Your task to perform on an android device: How big is a lion? Image 0: 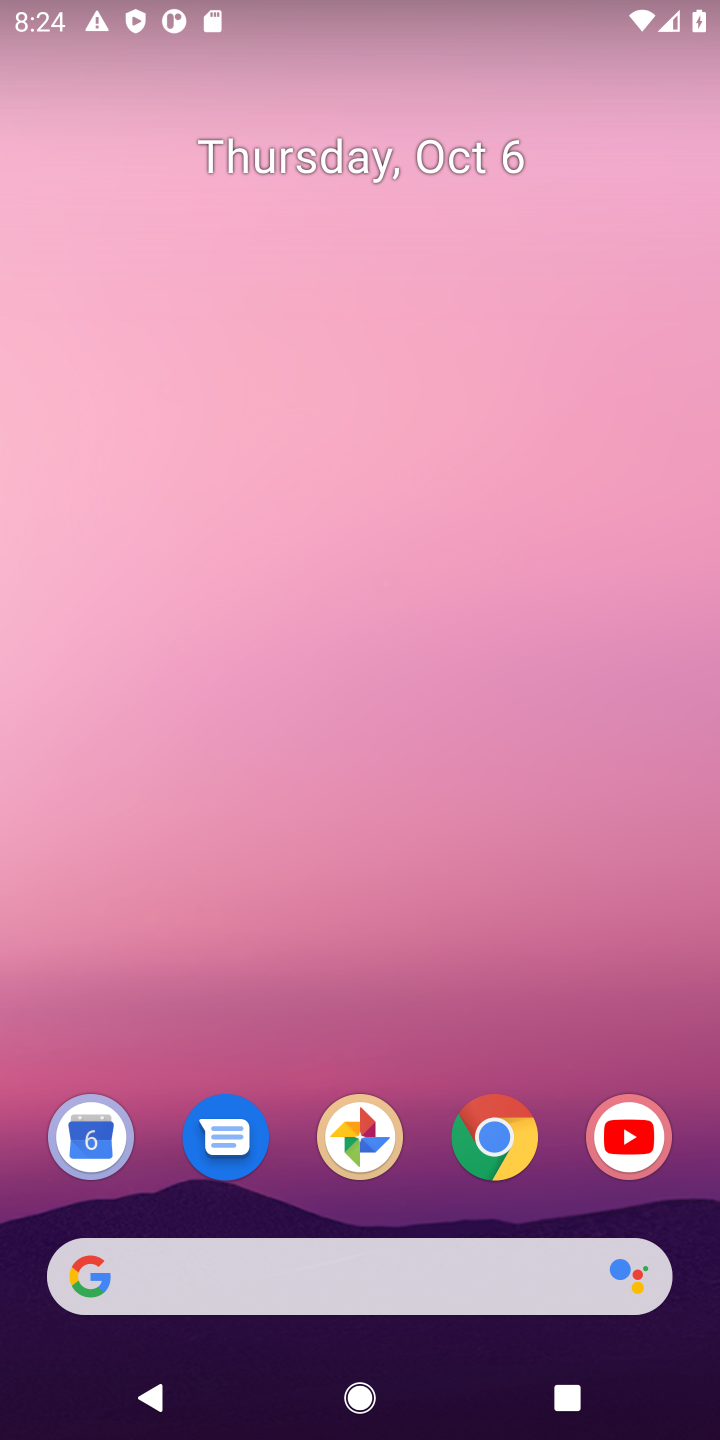
Step 0: click (497, 1126)
Your task to perform on an android device: How big is a lion? Image 1: 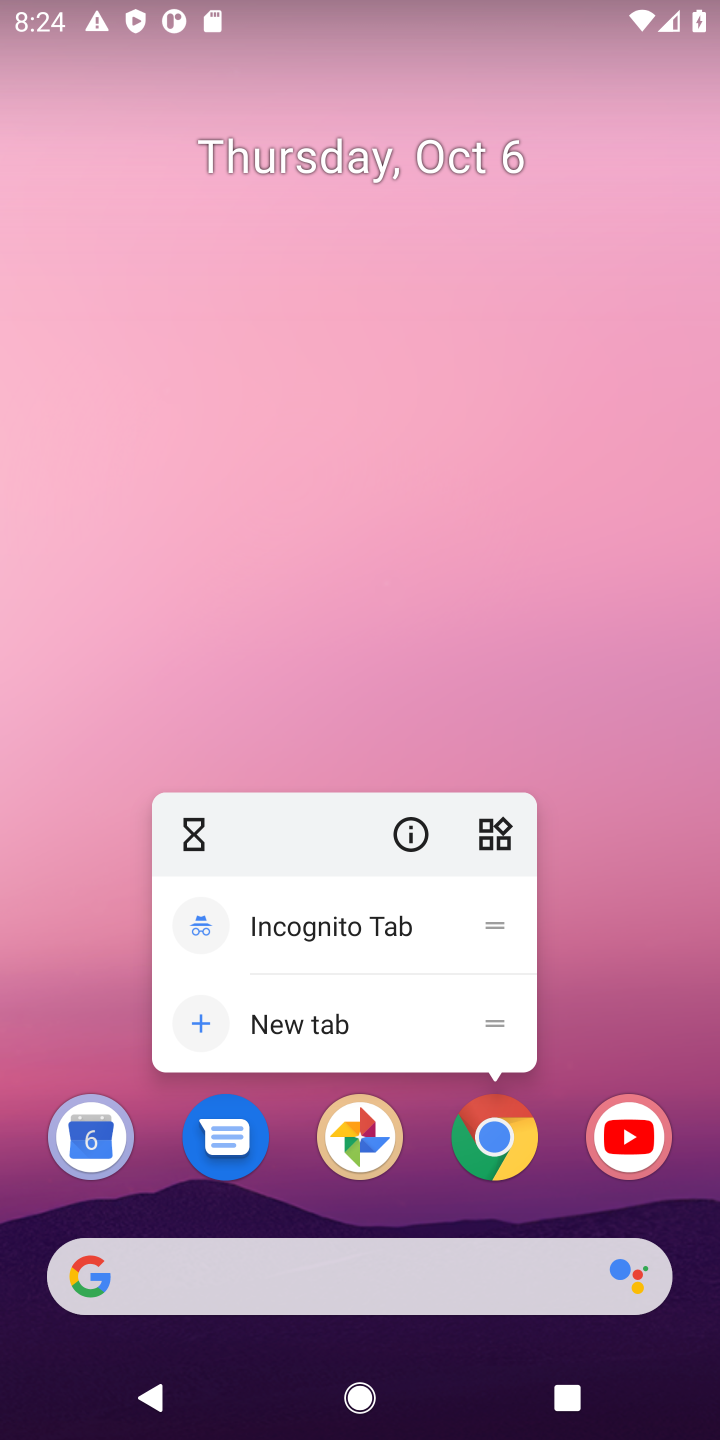
Step 1: click (492, 1148)
Your task to perform on an android device: How big is a lion? Image 2: 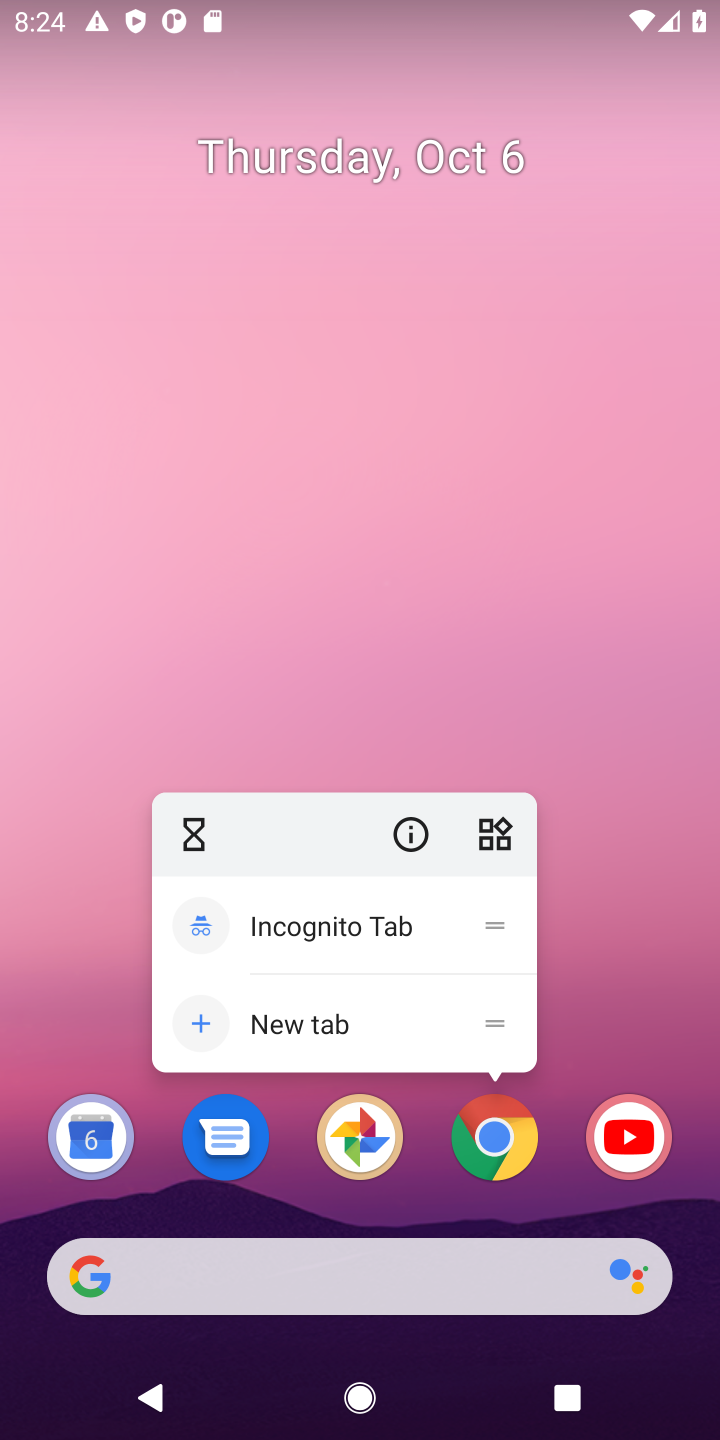
Step 2: click (493, 1159)
Your task to perform on an android device: How big is a lion? Image 3: 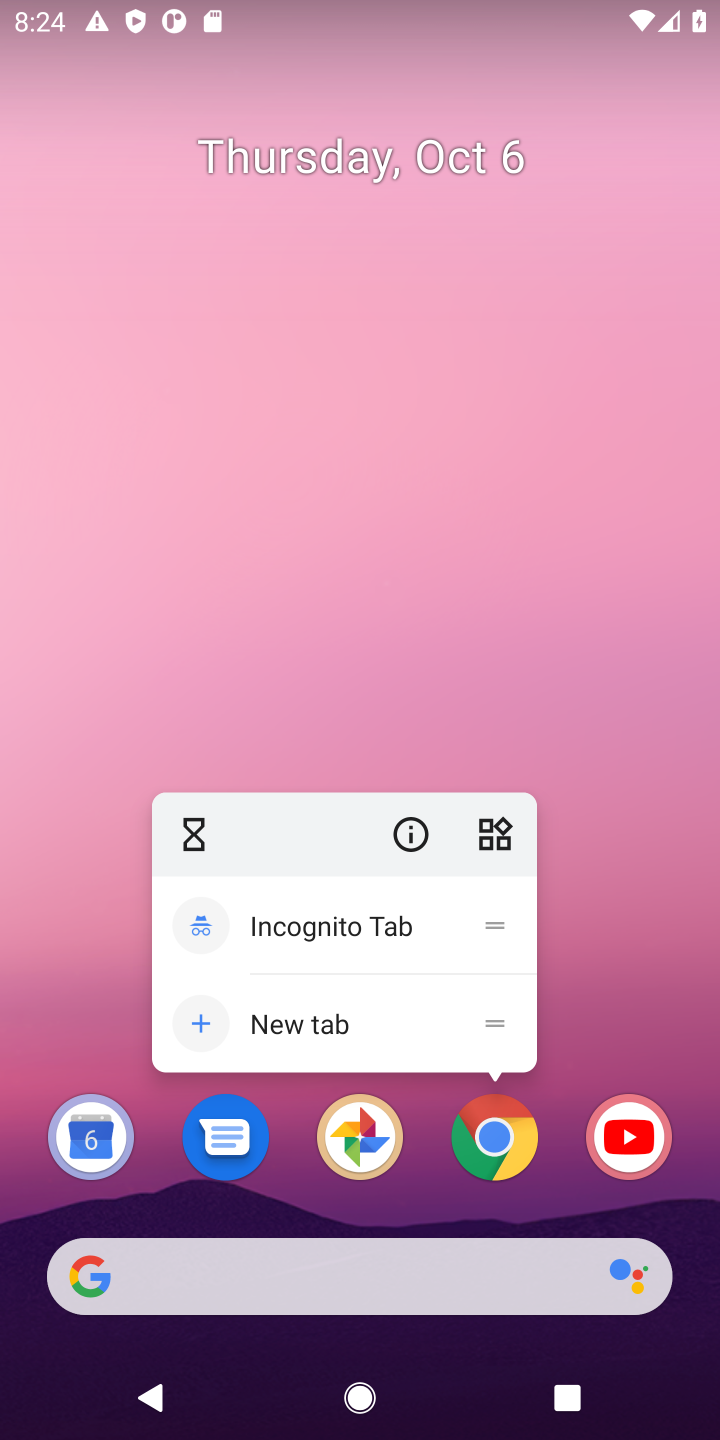
Step 3: click (499, 1153)
Your task to perform on an android device: How big is a lion? Image 4: 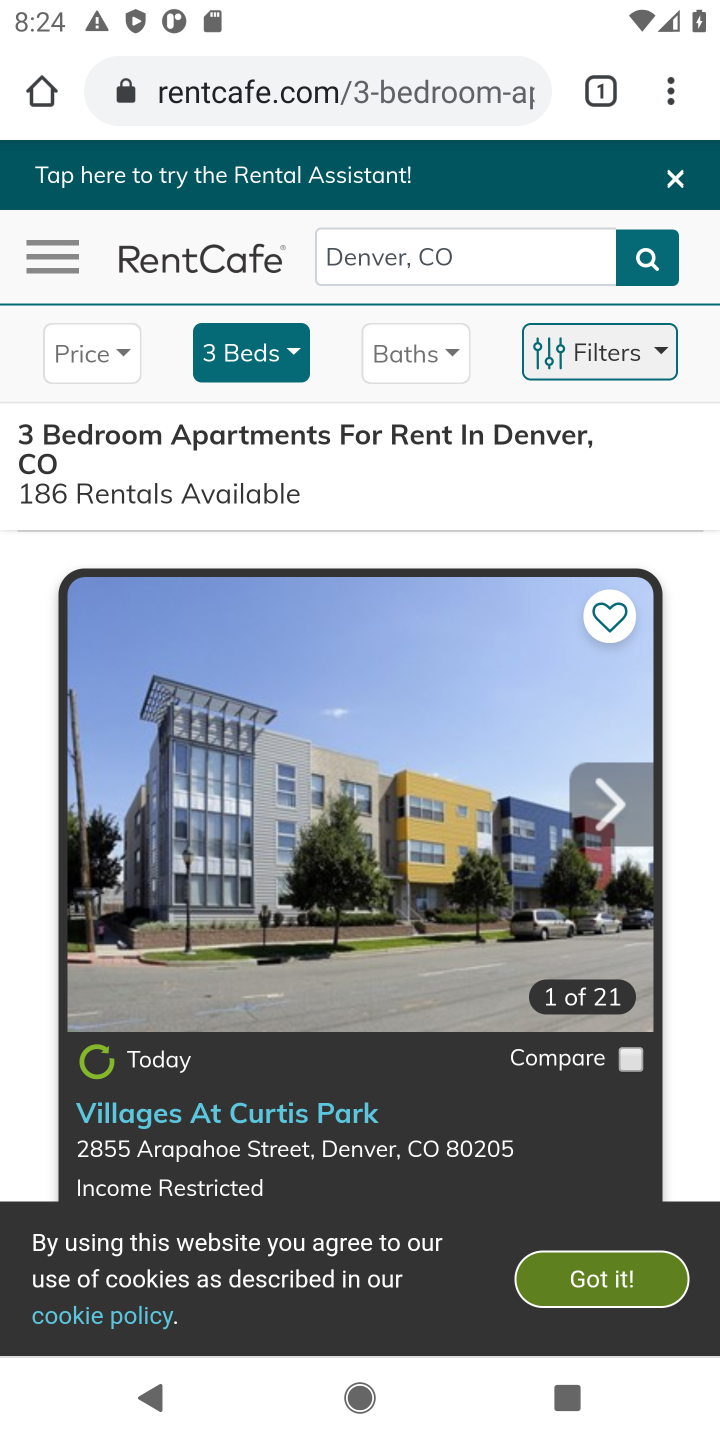
Step 4: click (485, 107)
Your task to perform on an android device: How big is a lion? Image 5: 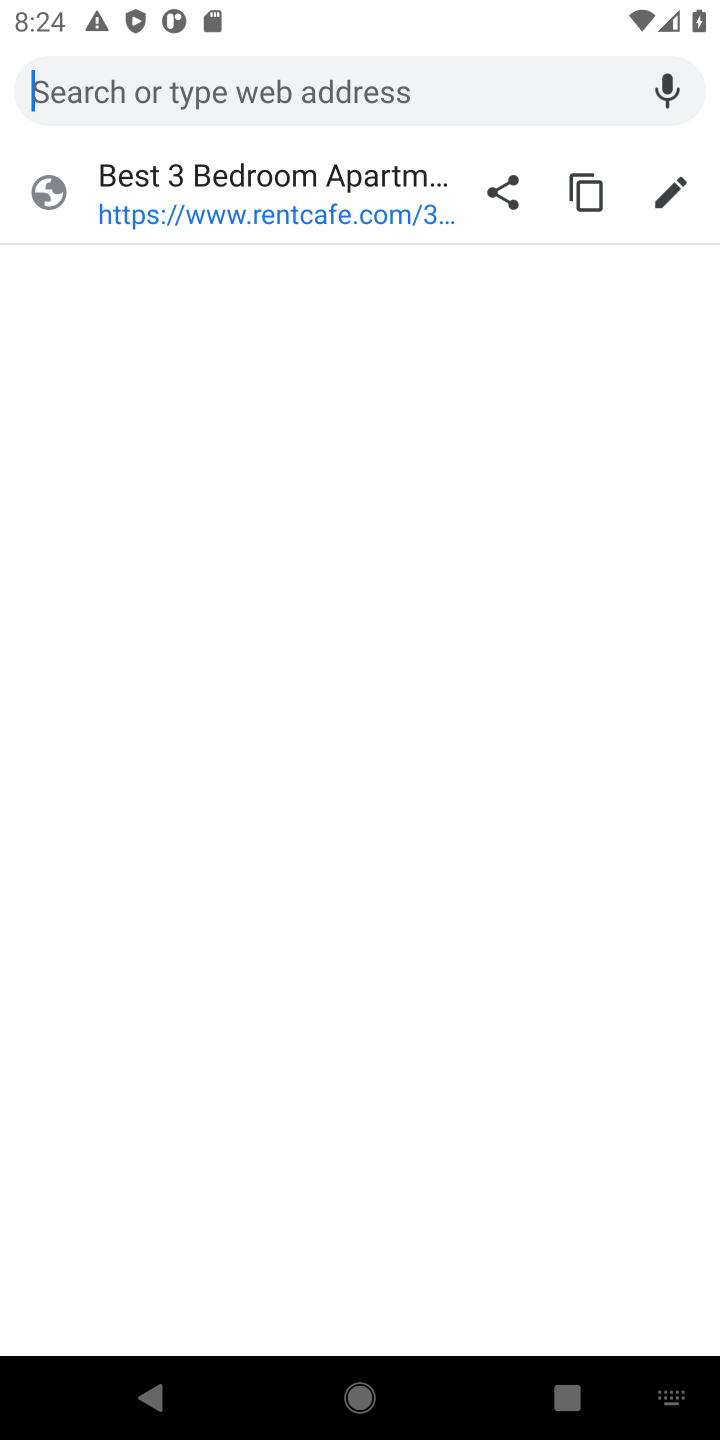
Step 5: type "how big is a lion ?"
Your task to perform on an android device: How big is a lion? Image 6: 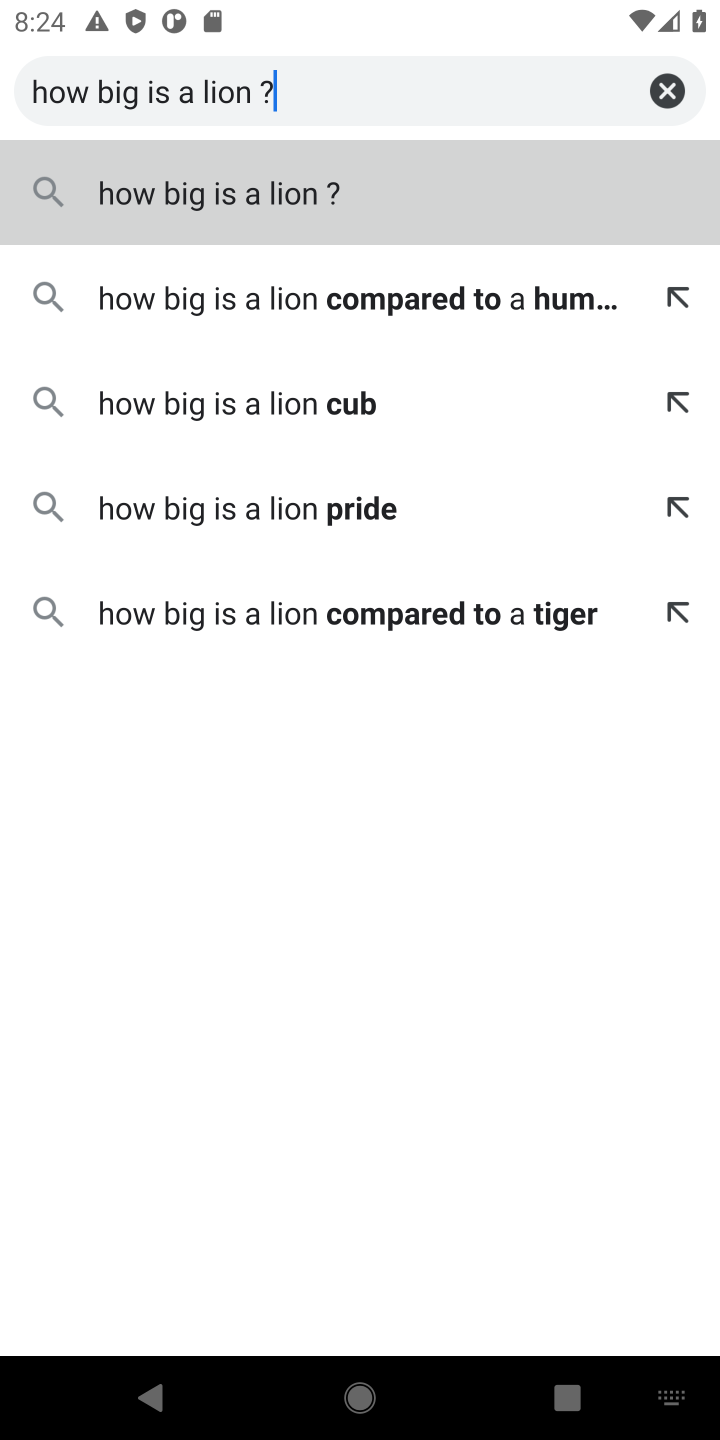
Step 6: click (189, 206)
Your task to perform on an android device: How big is a lion? Image 7: 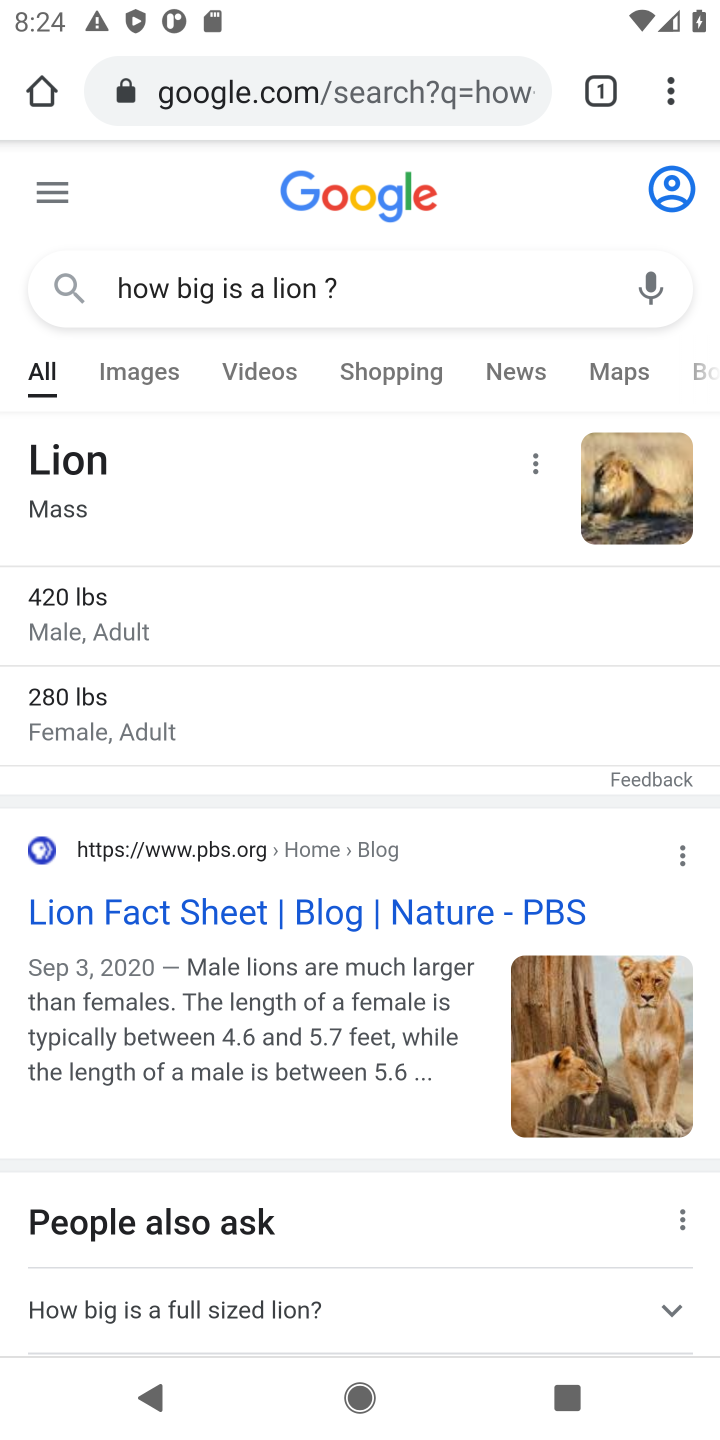
Step 7: click (206, 917)
Your task to perform on an android device: How big is a lion? Image 8: 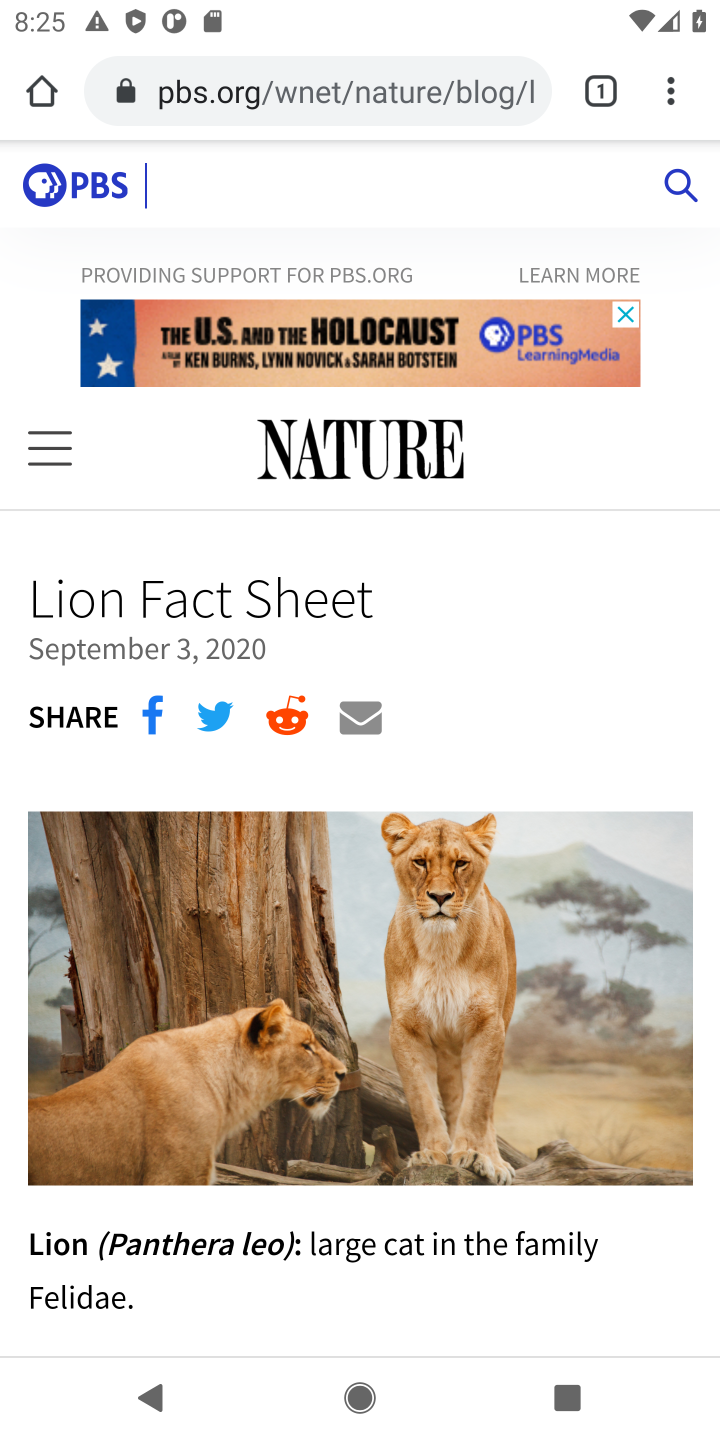
Step 8: task complete